Your task to perform on an android device: check storage Image 0: 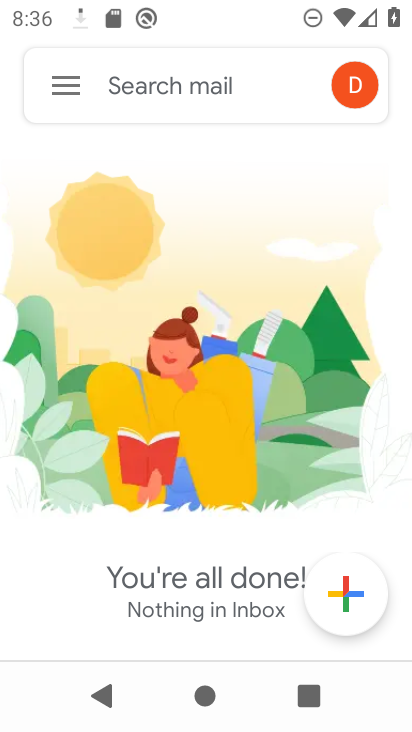
Step 0: press home button
Your task to perform on an android device: check storage Image 1: 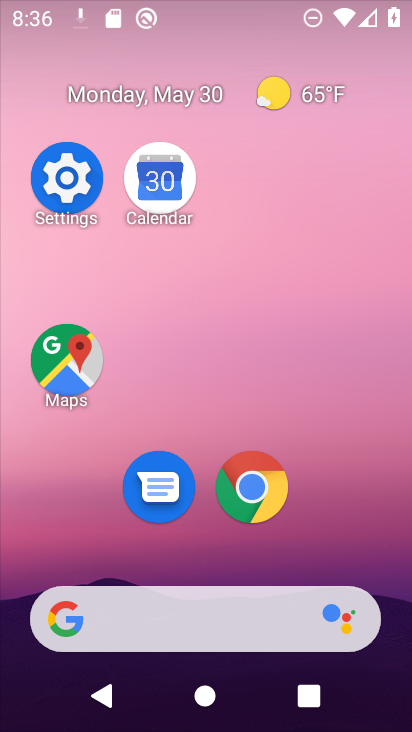
Step 1: click (65, 173)
Your task to perform on an android device: check storage Image 2: 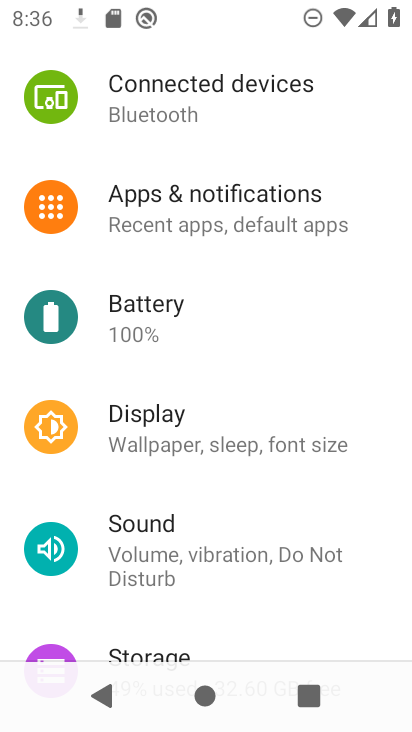
Step 2: drag from (242, 606) to (272, 318)
Your task to perform on an android device: check storage Image 3: 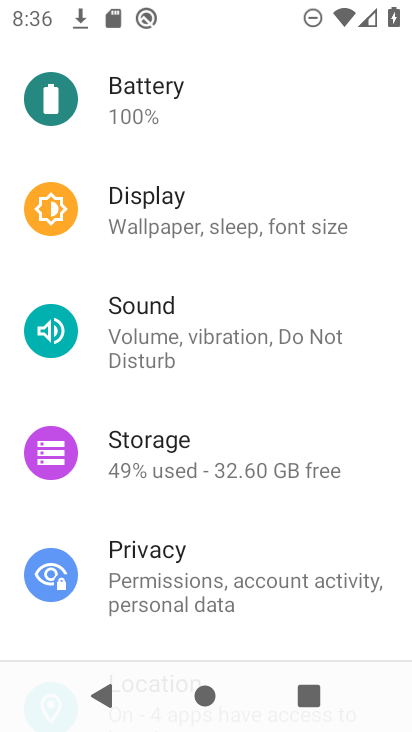
Step 3: click (191, 447)
Your task to perform on an android device: check storage Image 4: 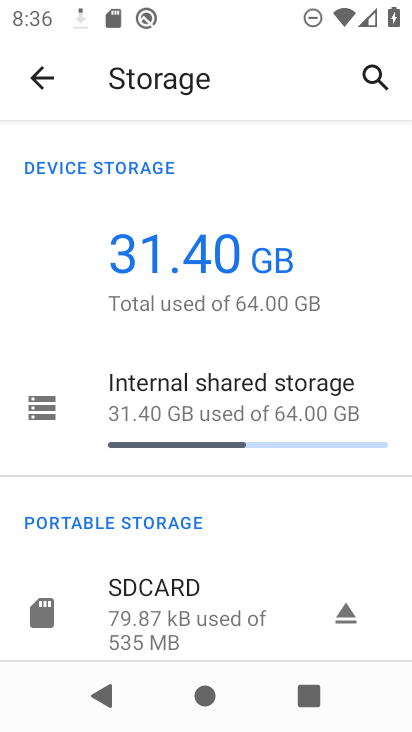
Step 4: task complete